Your task to perform on an android device: turn on improve location accuracy Image 0: 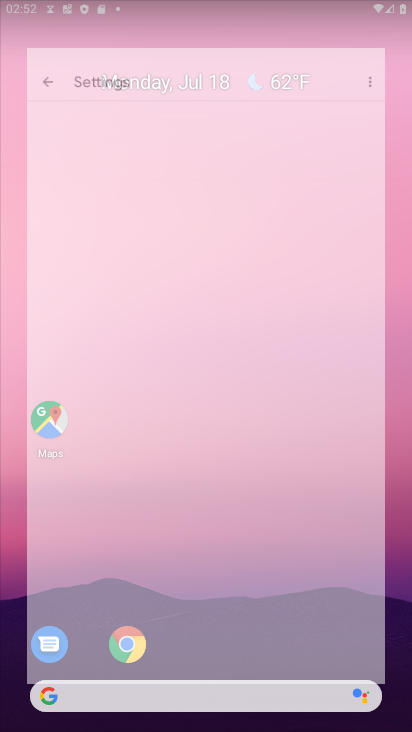
Step 0: drag from (268, 709) to (235, 232)
Your task to perform on an android device: turn on improve location accuracy Image 1: 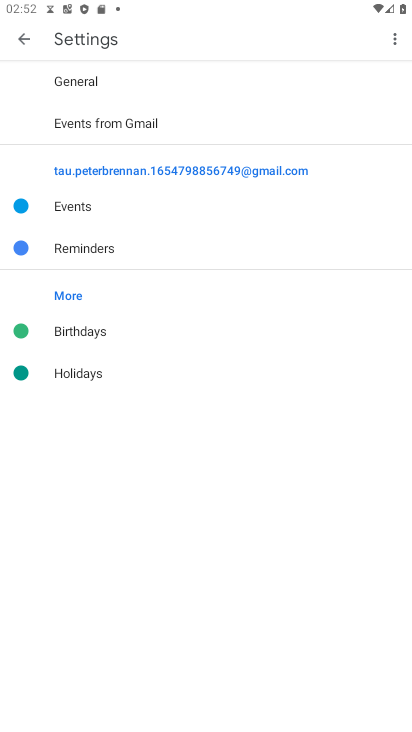
Step 1: click (17, 41)
Your task to perform on an android device: turn on improve location accuracy Image 2: 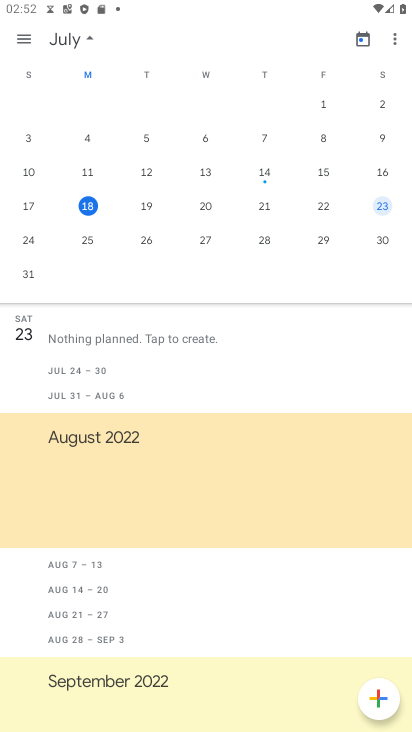
Step 2: press back button
Your task to perform on an android device: turn on improve location accuracy Image 3: 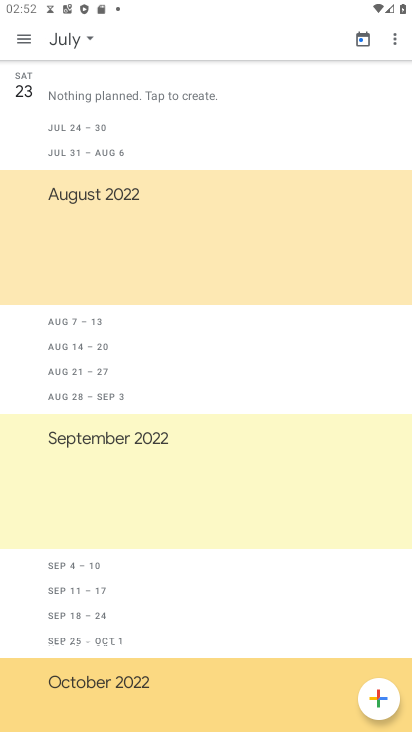
Step 3: press home button
Your task to perform on an android device: turn on improve location accuracy Image 4: 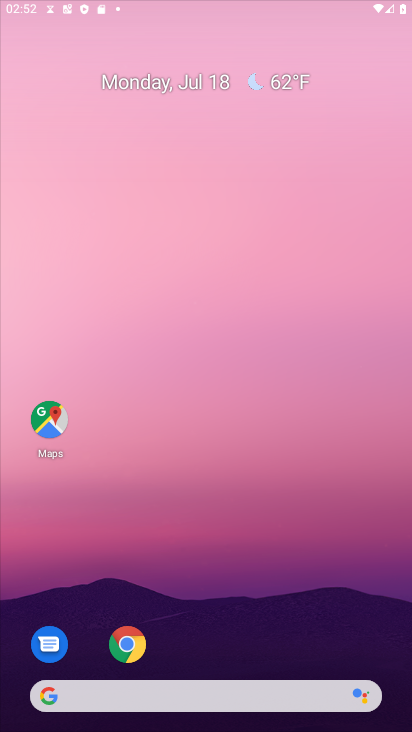
Step 4: drag from (325, 644) to (284, 229)
Your task to perform on an android device: turn on improve location accuracy Image 5: 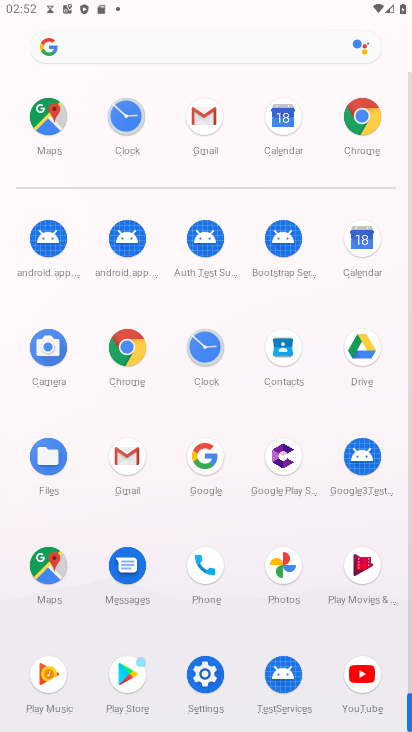
Step 5: click (49, 348)
Your task to perform on an android device: turn on improve location accuracy Image 6: 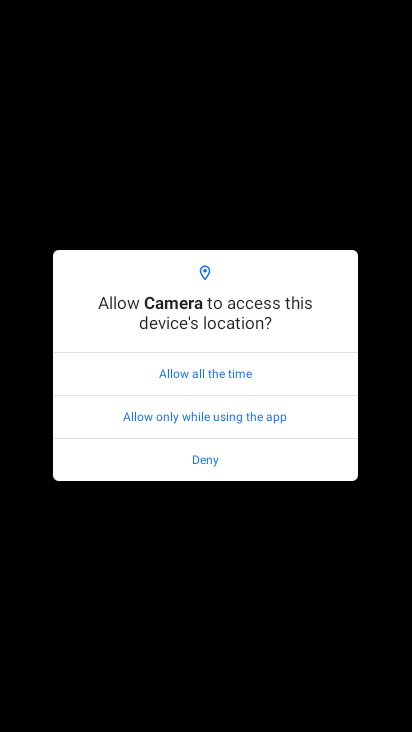
Step 6: press back button
Your task to perform on an android device: turn on improve location accuracy Image 7: 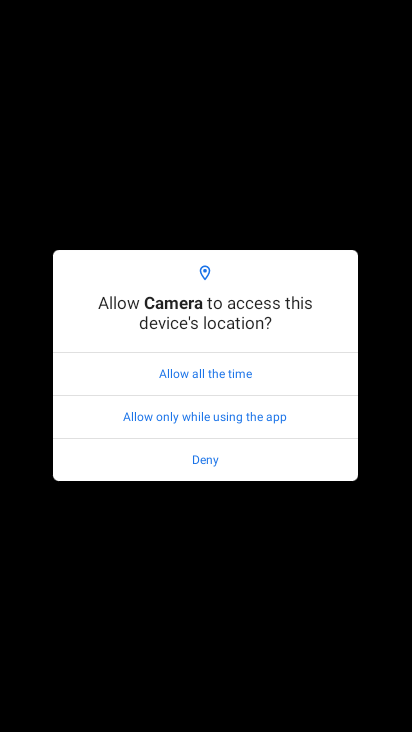
Step 7: press back button
Your task to perform on an android device: turn on improve location accuracy Image 8: 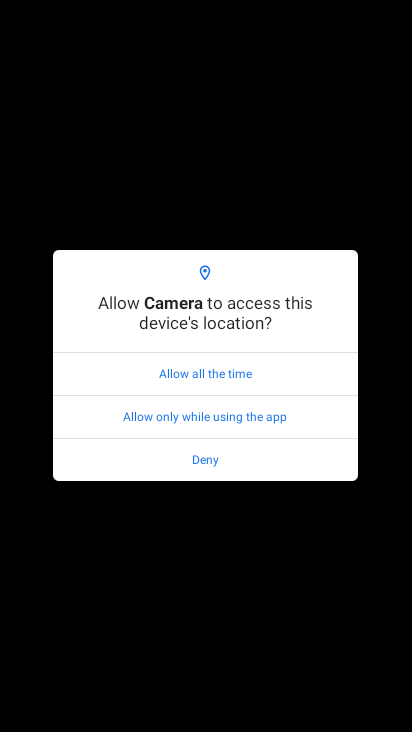
Step 8: click (186, 183)
Your task to perform on an android device: turn on improve location accuracy Image 9: 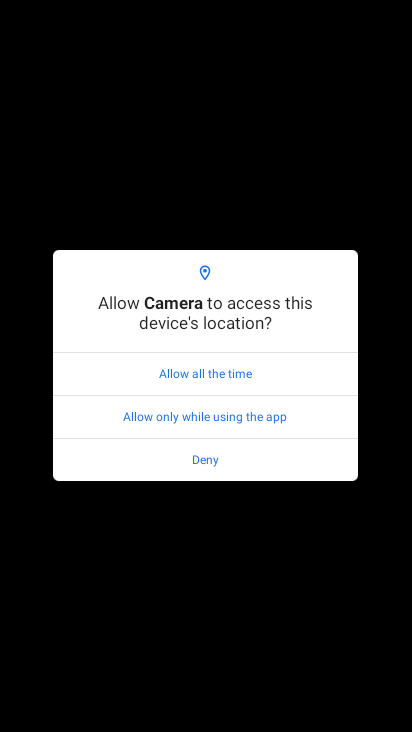
Step 9: click (186, 183)
Your task to perform on an android device: turn on improve location accuracy Image 10: 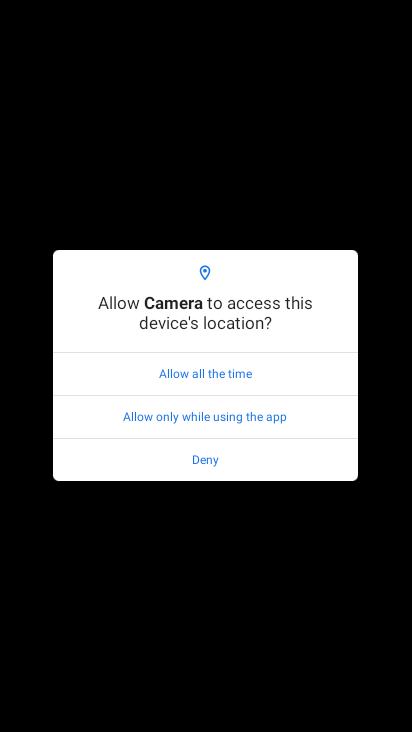
Step 10: click (192, 183)
Your task to perform on an android device: turn on improve location accuracy Image 11: 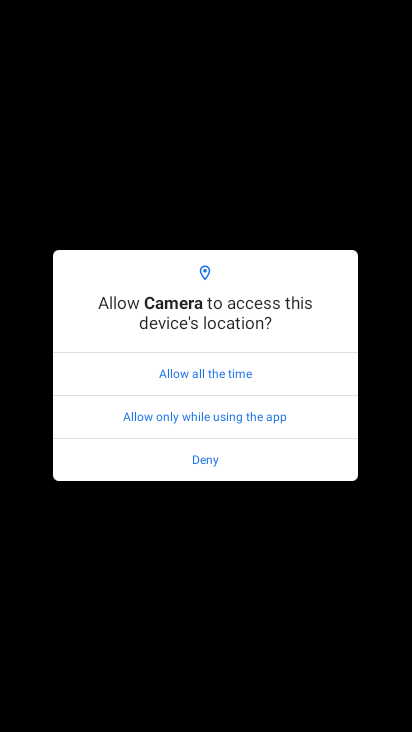
Step 11: click (193, 184)
Your task to perform on an android device: turn on improve location accuracy Image 12: 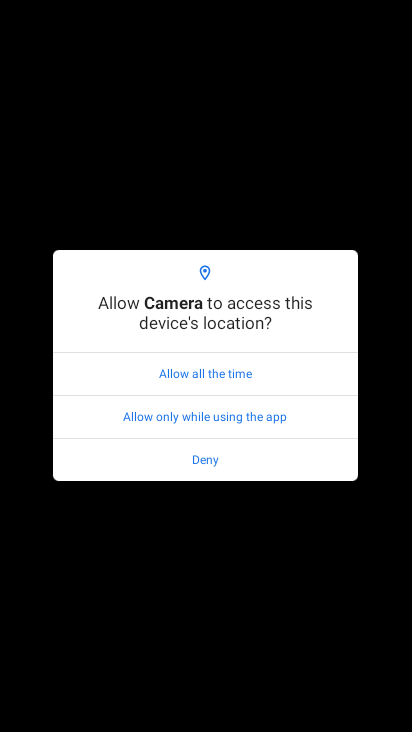
Step 12: click (194, 185)
Your task to perform on an android device: turn on improve location accuracy Image 13: 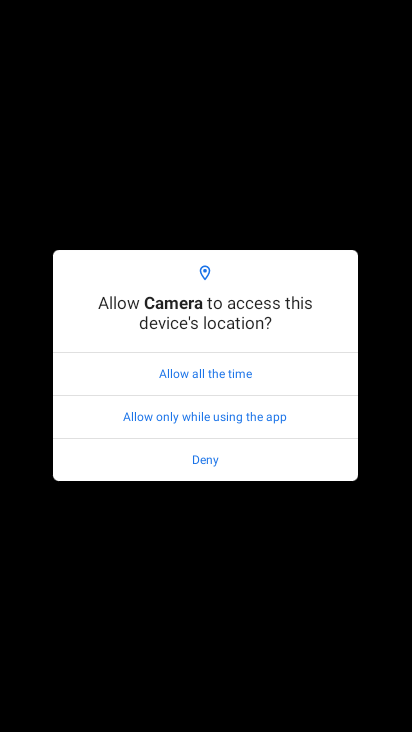
Step 13: press back button
Your task to perform on an android device: turn on improve location accuracy Image 14: 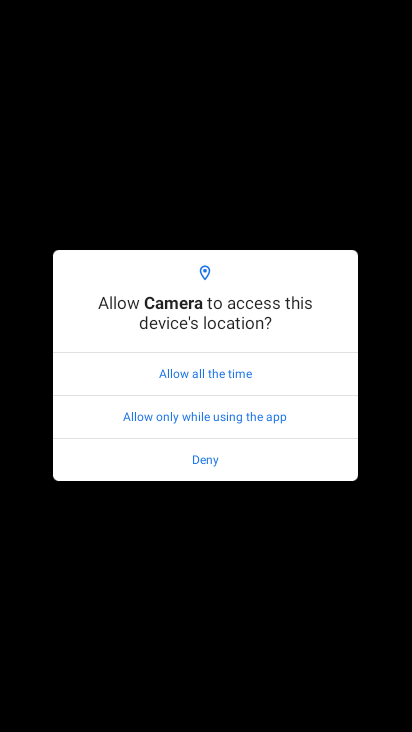
Step 14: press home button
Your task to perform on an android device: turn on improve location accuracy Image 15: 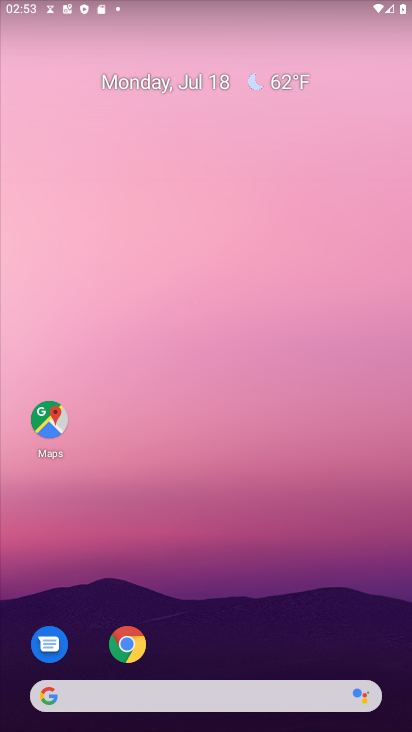
Step 15: drag from (230, 672) to (217, 111)
Your task to perform on an android device: turn on improve location accuracy Image 16: 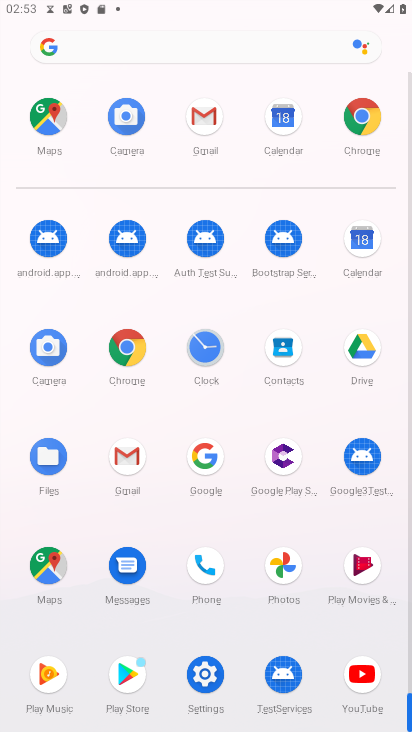
Step 16: click (202, 672)
Your task to perform on an android device: turn on improve location accuracy Image 17: 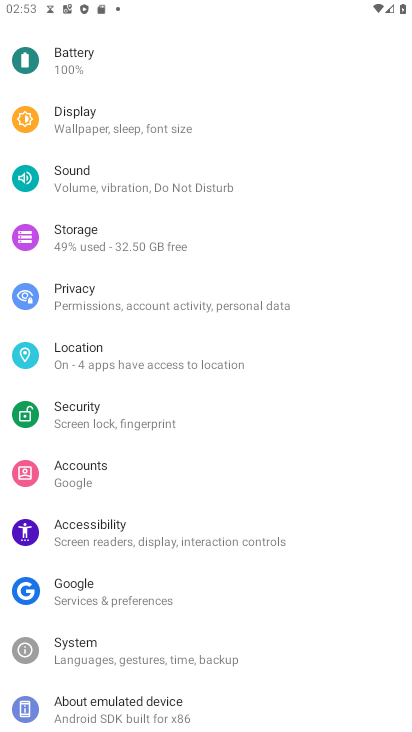
Step 17: click (208, 666)
Your task to perform on an android device: turn on improve location accuracy Image 18: 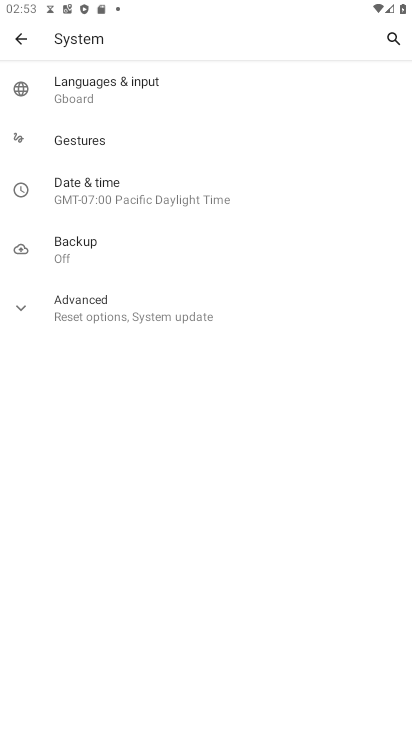
Step 18: click (9, 35)
Your task to perform on an android device: turn on improve location accuracy Image 19: 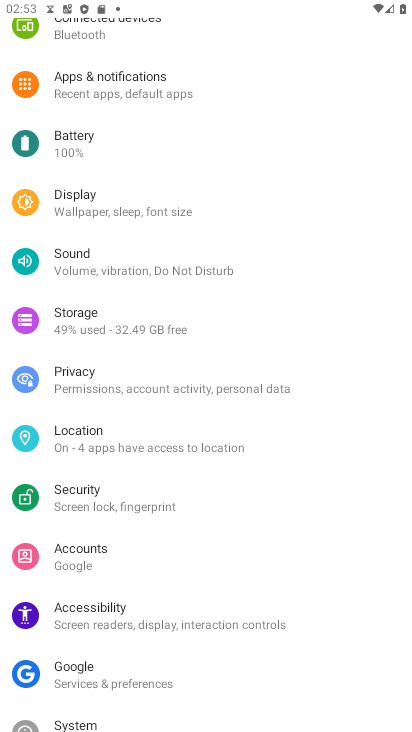
Step 19: click (88, 451)
Your task to perform on an android device: turn on improve location accuracy Image 20: 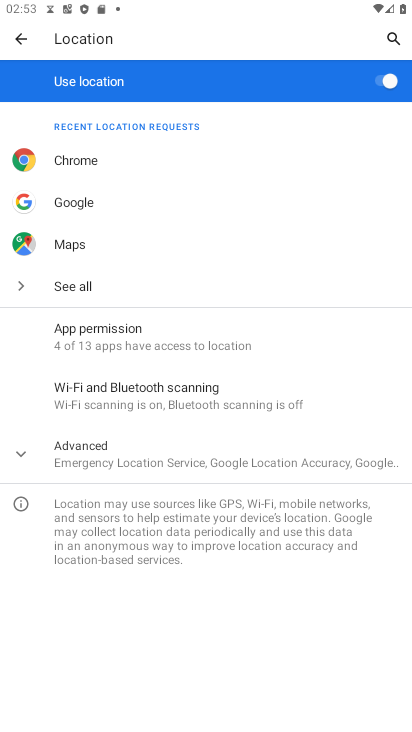
Step 20: click (94, 457)
Your task to perform on an android device: turn on improve location accuracy Image 21: 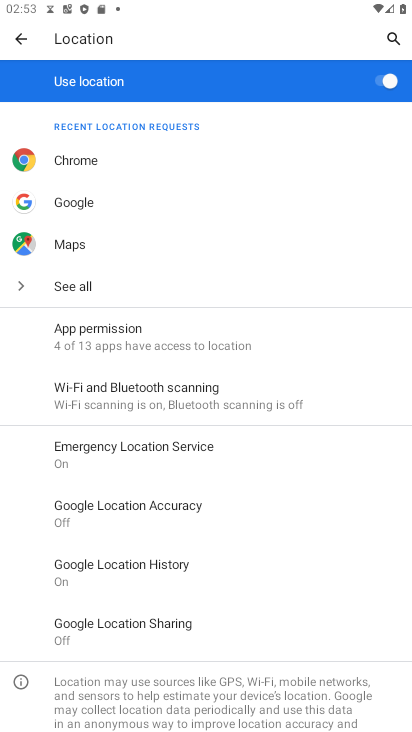
Step 21: click (120, 502)
Your task to perform on an android device: turn on improve location accuracy Image 22: 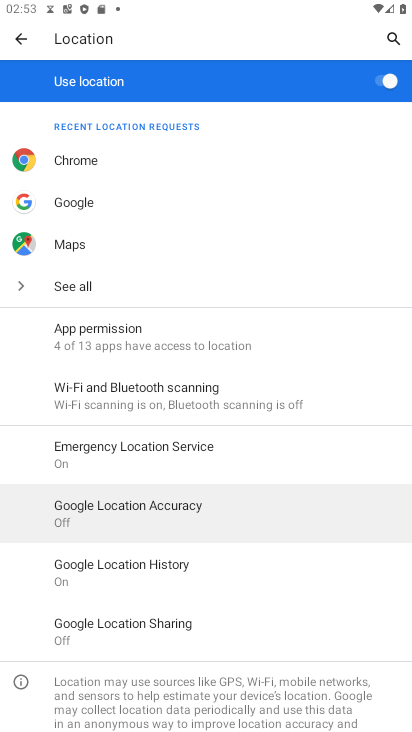
Step 22: click (122, 500)
Your task to perform on an android device: turn on improve location accuracy Image 23: 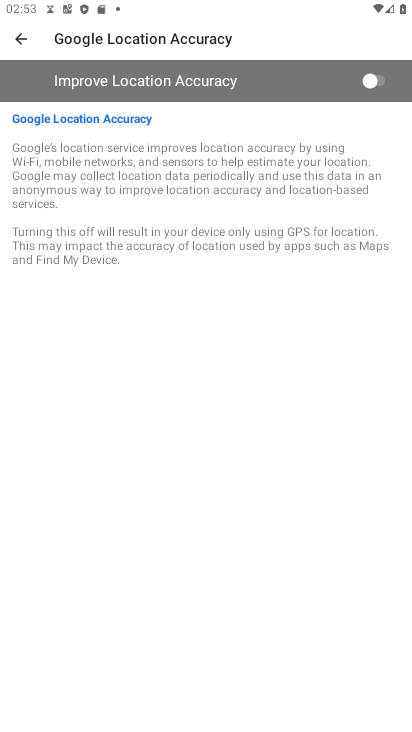
Step 23: click (363, 82)
Your task to perform on an android device: turn on improve location accuracy Image 24: 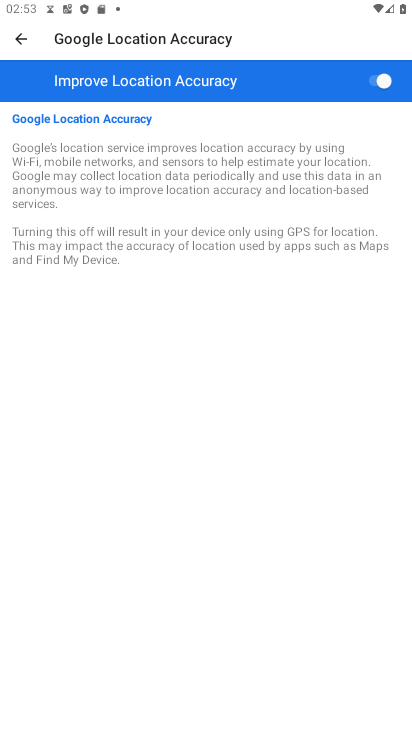
Step 24: task complete